Your task to perform on an android device: Open settings on Google Maps Image 0: 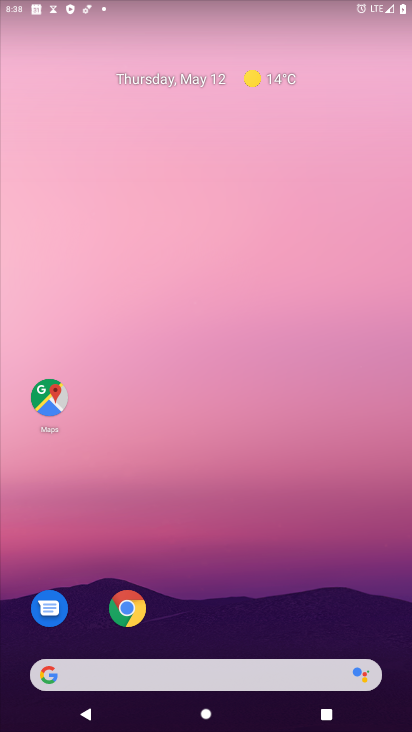
Step 0: click (44, 395)
Your task to perform on an android device: Open settings on Google Maps Image 1: 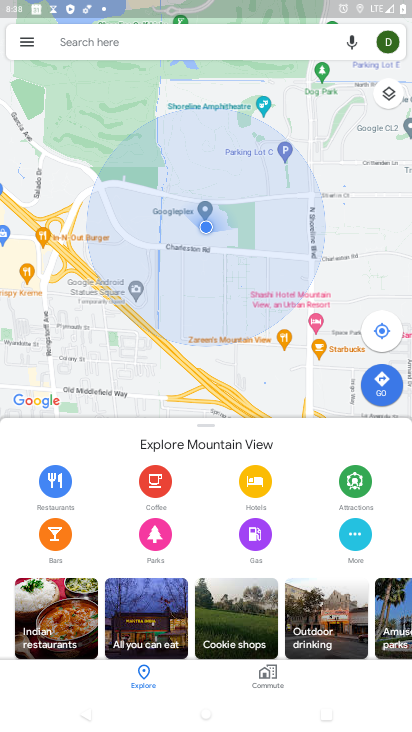
Step 1: task complete